Your task to perform on an android device: Go to battery settings Image 0: 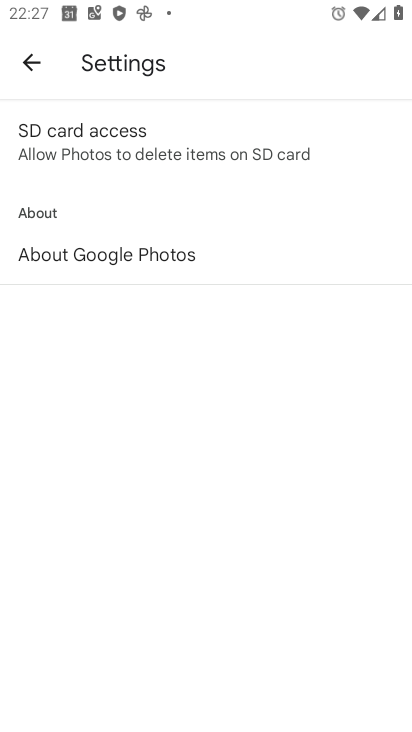
Step 0: press home button
Your task to perform on an android device: Go to battery settings Image 1: 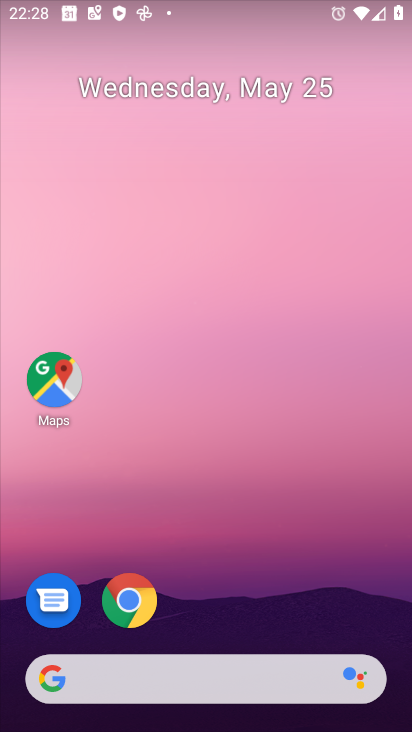
Step 1: drag from (358, 579) to (383, 136)
Your task to perform on an android device: Go to battery settings Image 2: 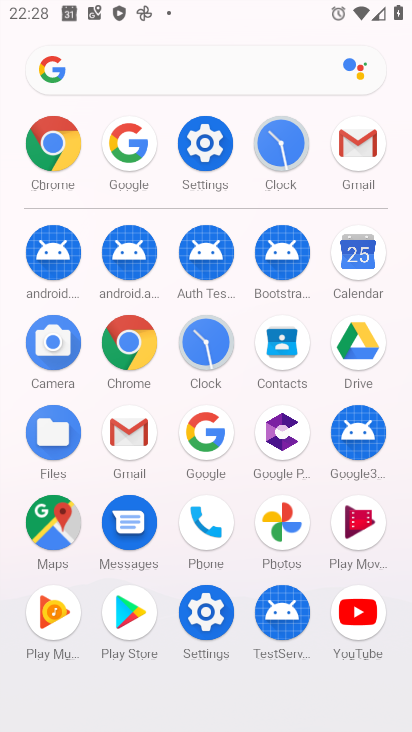
Step 2: click (212, 632)
Your task to perform on an android device: Go to battery settings Image 3: 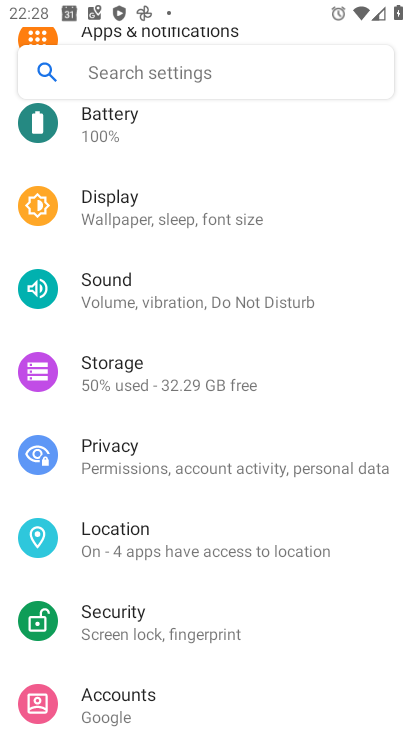
Step 3: click (141, 122)
Your task to perform on an android device: Go to battery settings Image 4: 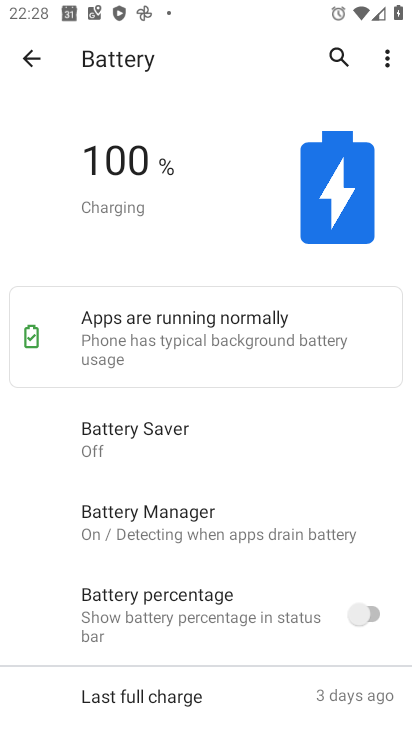
Step 4: task complete